Your task to perform on an android device: Open Yahoo.com Image 0: 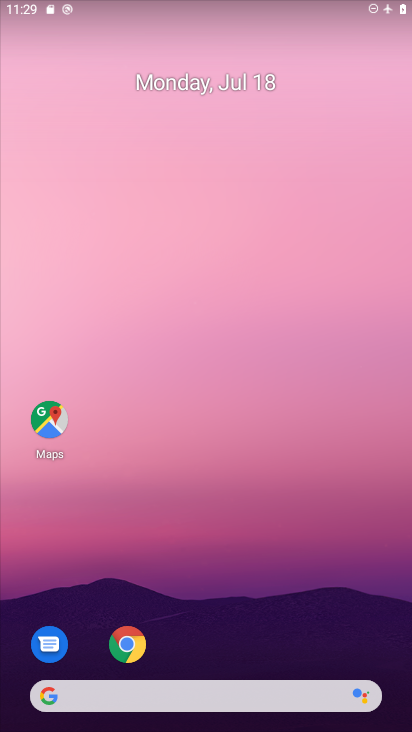
Step 0: click (171, 199)
Your task to perform on an android device: Open Yahoo.com Image 1: 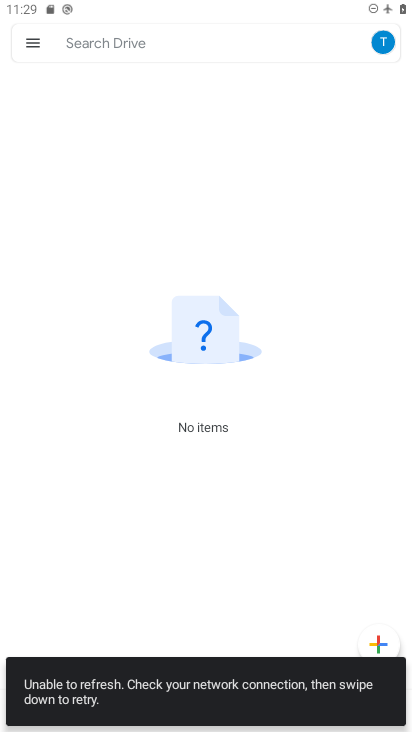
Step 1: press home button
Your task to perform on an android device: Open Yahoo.com Image 2: 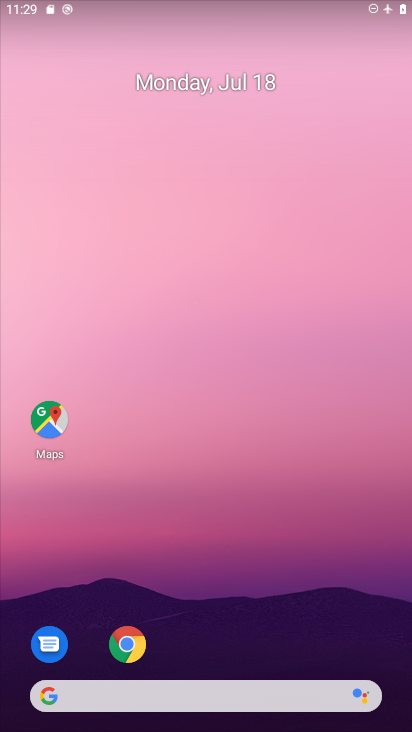
Step 2: drag from (205, 677) to (234, 199)
Your task to perform on an android device: Open Yahoo.com Image 3: 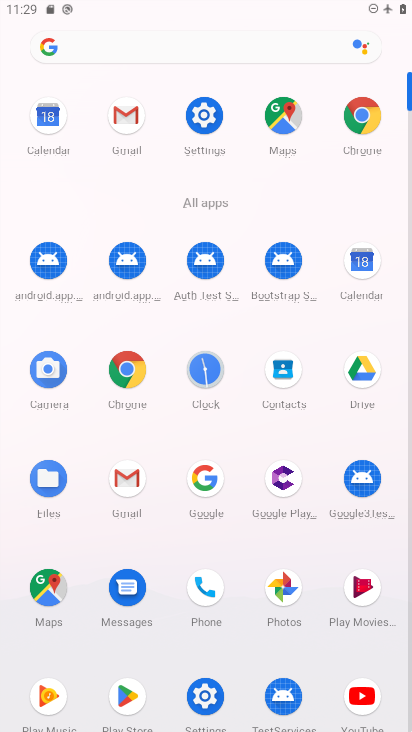
Step 3: click (122, 360)
Your task to perform on an android device: Open Yahoo.com Image 4: 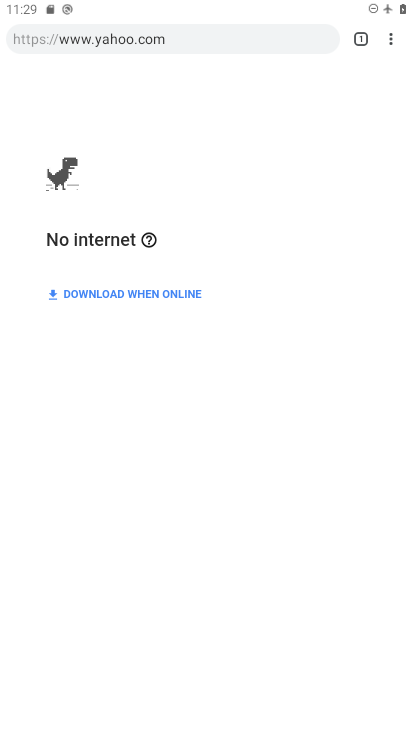
Step 4: task complete